Your task to perform on an android device: Open the calendar and show me this week's events? Image 0: 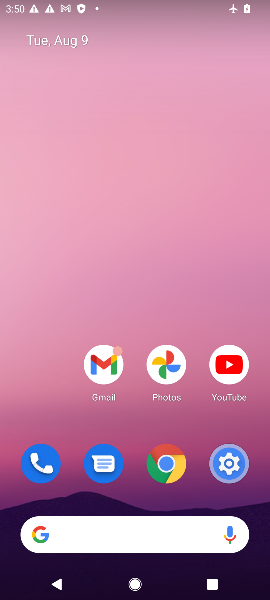
Step 0: drag from (170, 518) to (91, 207)
Your task to perform on an android device: Open the calendar and show me this week's events? Image 1: 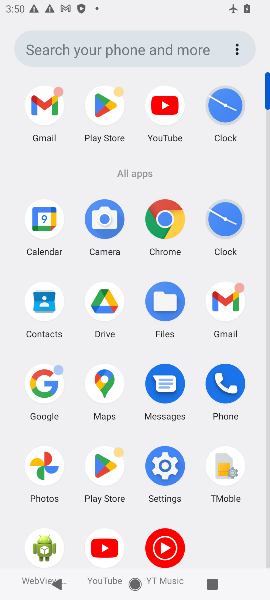
Step 1: click (36, 222)
Your task to perform on an android device: Open the calendar and show me this week's events? Image 2: 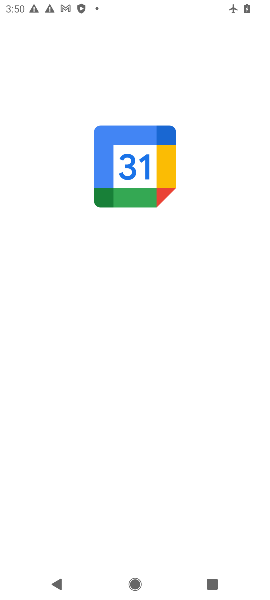
Step 2: click (36, 222)
Your task to perform on an android device: Open the calendar and show me this week's events? Image 3: 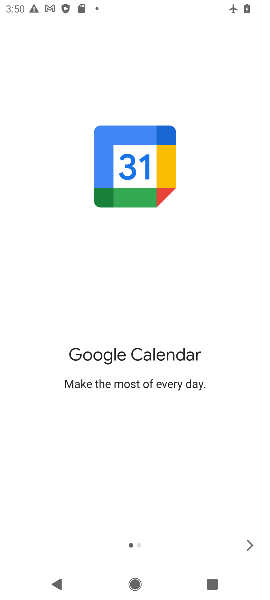
Step 3: click (252, 546)
Your task to perform on an android device: Open the calendar and show me this week's events? Image 4: 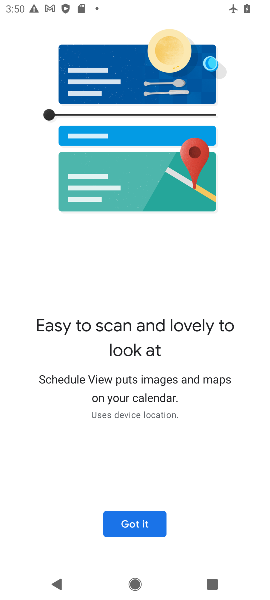
Step 4: click (119, 533)
Your task to perform on an android device: Open the calendar and show me this week's events? Image 5: 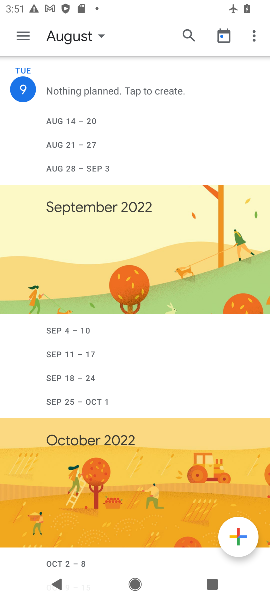
Step 5: click (56, 41)
Your task to perform on an android device: Open the calendar and show me this week's events? Image 6: 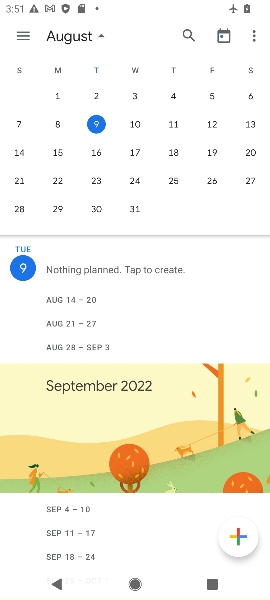
Step 6: click (132, 121)
Your task to perform on an android device: Open the calendar and show me this week's events? Image 7: 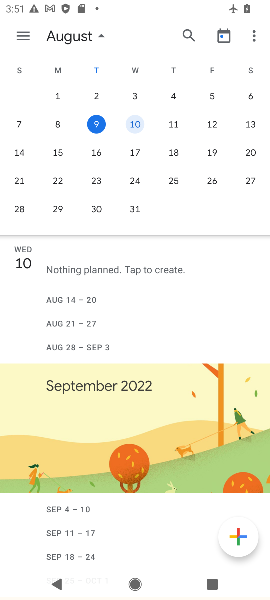
Step 7: click (184, 126)
Your task to perform on an android device: Open the calendar and show me this week's events? Image 8: 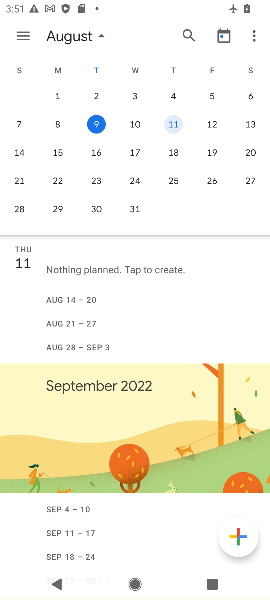
Step 8: click (205, 123)
Your task to perform on an android device: Open the calendar and show me this week's events? Image 9: 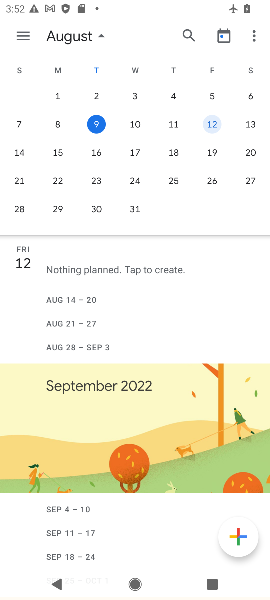
Step 9: task complete